Your task to perform on an android device: Go to Yahoo.com Image 0: 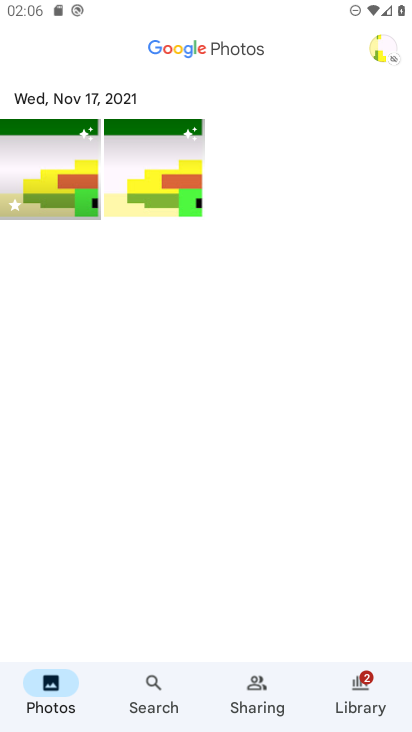
Step 0: press home button
Your task to perform on an android device: Go to Yahoo.com Image 1: 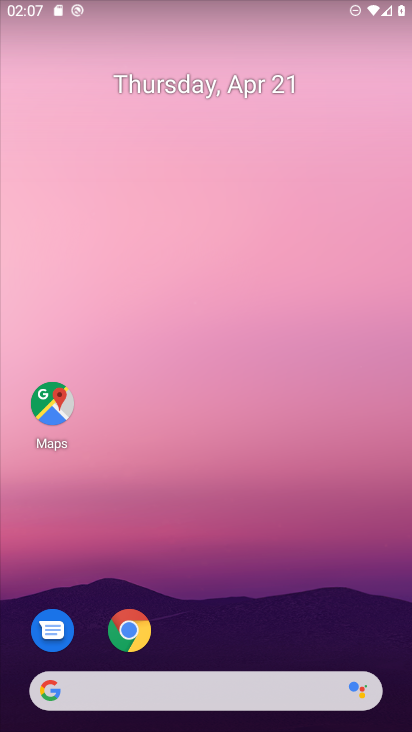
Step 1: click (137, 637)
Your task to perform on an android device: Go to Yahoo.com Image 2: 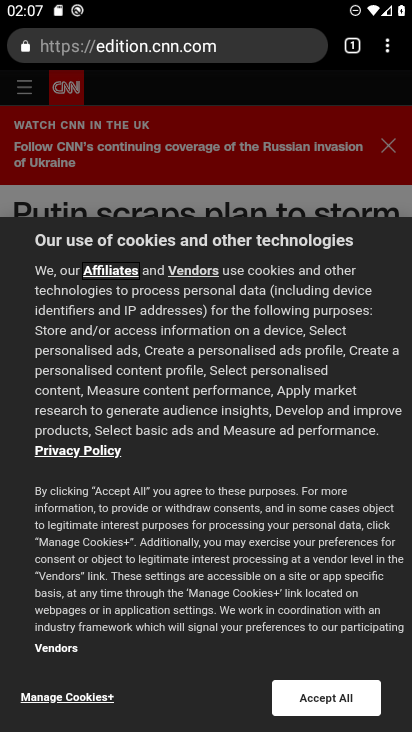
Step 2: click (250, 57)
Your task to perform on an android device: Go to Yahoo.com Image 3: 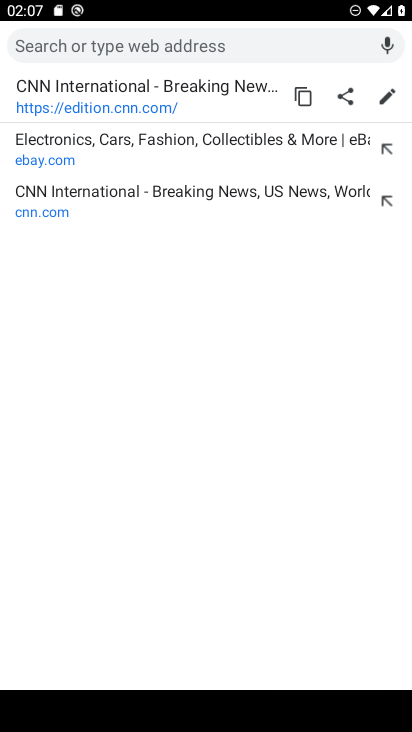
Step 3: type "yahoo.com"
Your task to perform on an android device: Go to Yahoo.com Image 4: 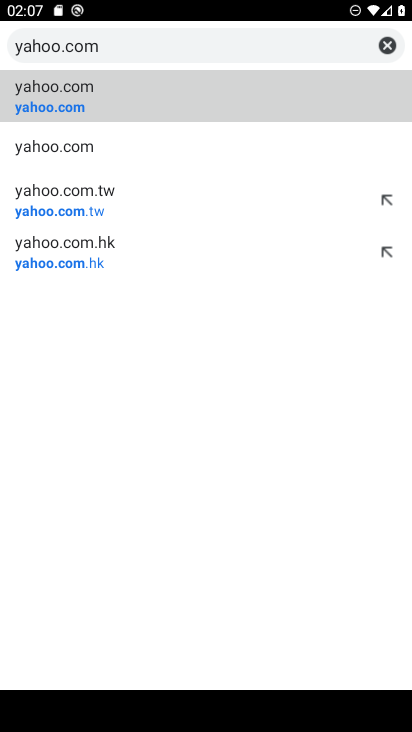
Step 4: task complete